Your task to perform on an android device: How much does a 3 bedroom apartment rent for in Atlanta? Image 0: 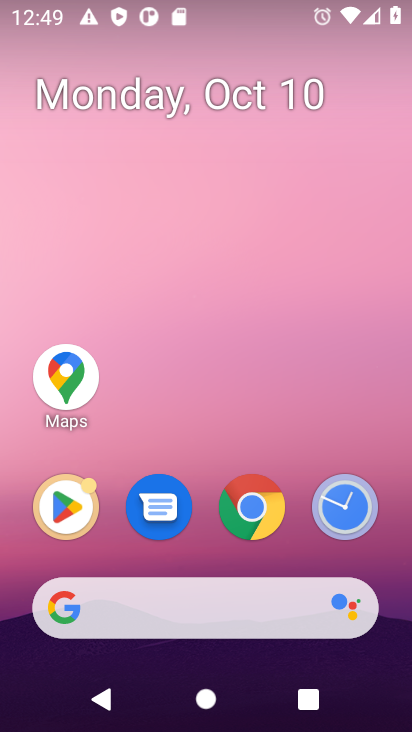
Step 0: click (265, 605)
Your task to perform on an android device: How much does a 3 bedroom apartment rent for in Atlanta? Image 1: 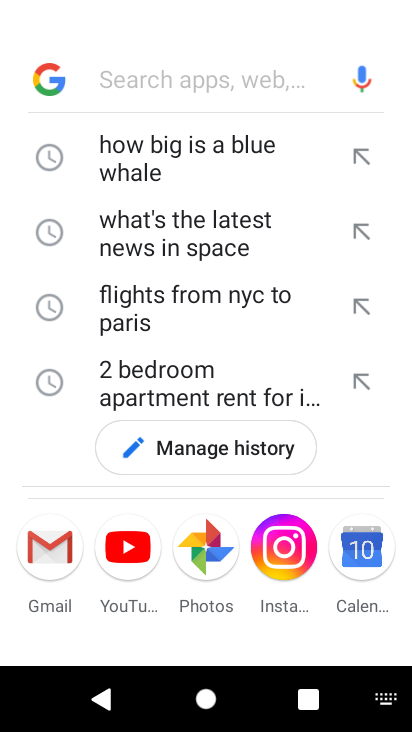
Step 1: type "3 bedroom apartment rent for in Atlanta"
Your task to perform on an android device: How much does a 3 bedroom apartment rent for in Atlanta? Image 2: 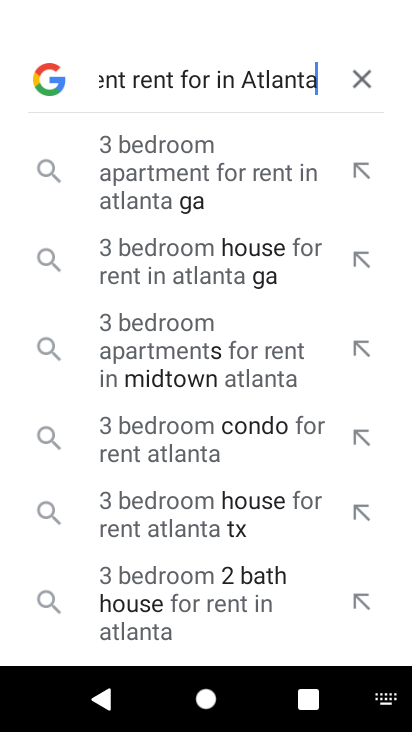
Step 2: press enter
Your task to perform on an android device: How much does a 3 bedroom apartment rent for in Atlanta? Image 3: 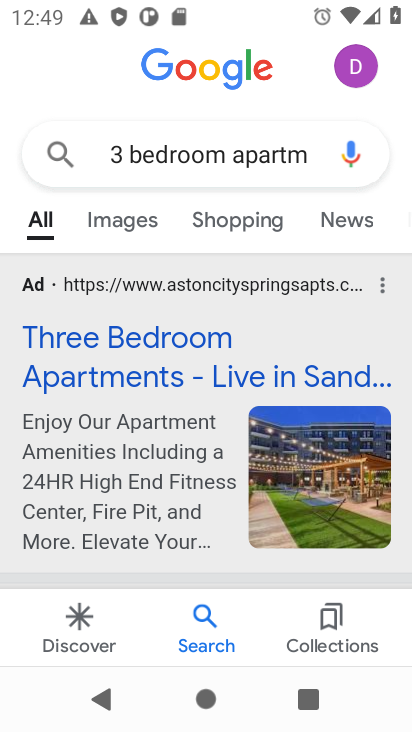
Step 3: drag from (135, 528) to (132, 425)
Your task to perform on an android device: How much does a 3 bedroom apartment rent for in Atlanta? Image 4: 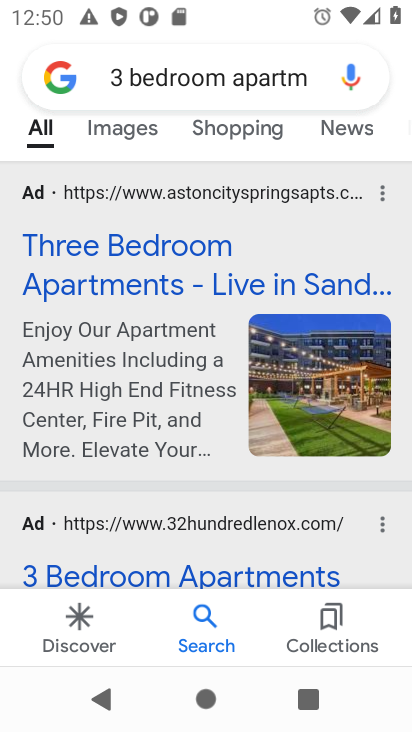
Step 4: drag from (160, 493) to (172, 412)
Your task to perform on an android device: How much does a 3 bedroom apartment rent for in Atlanta? Image 5: 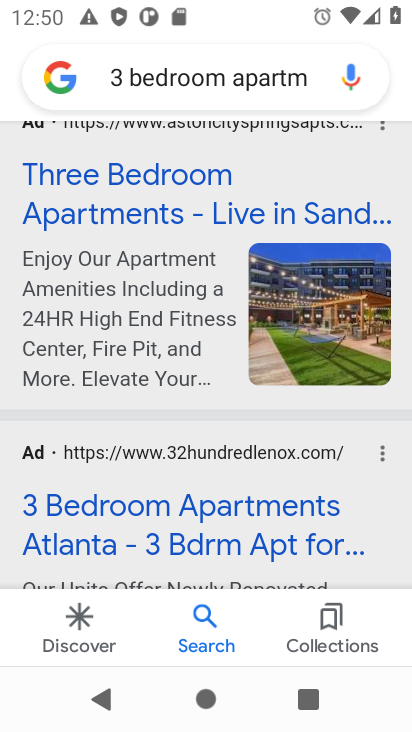
Step 5: click (172, 518)
Your task to perform on an android device: How much does a 3 bedroom apartment rent for in Atlanta? Image 6: 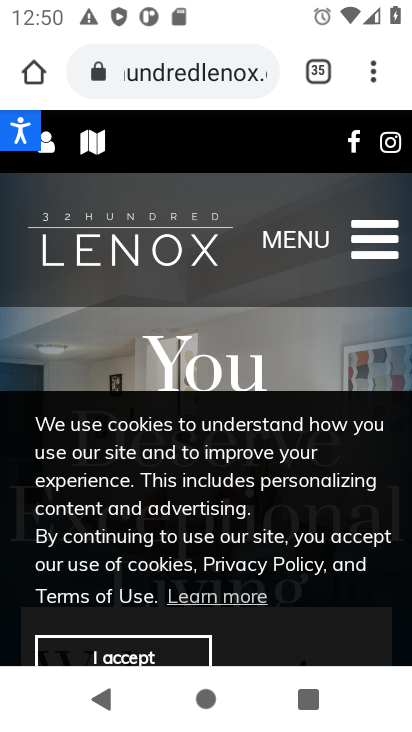
Step 6: drag from (266, 631) to (266, 418)
Your task to perform on an android device: How much does a 3 bedroom apartment rent for in Atlanta? Image 7: 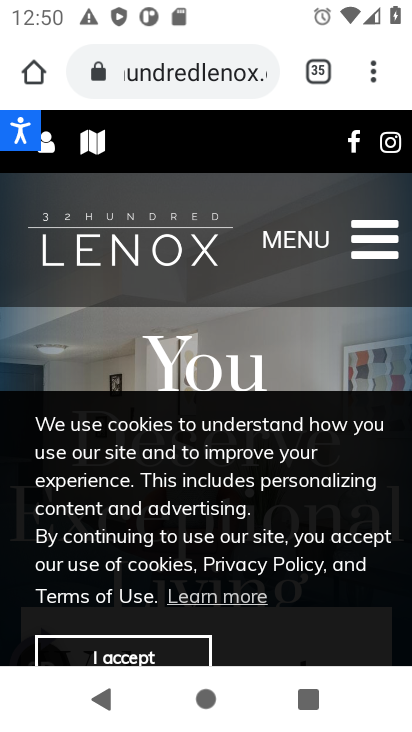
Step 7: click (138, 658)
Your task to perform on an android device: How much does a 3 bedroom apartment rent for in Atlanta? Image 8: 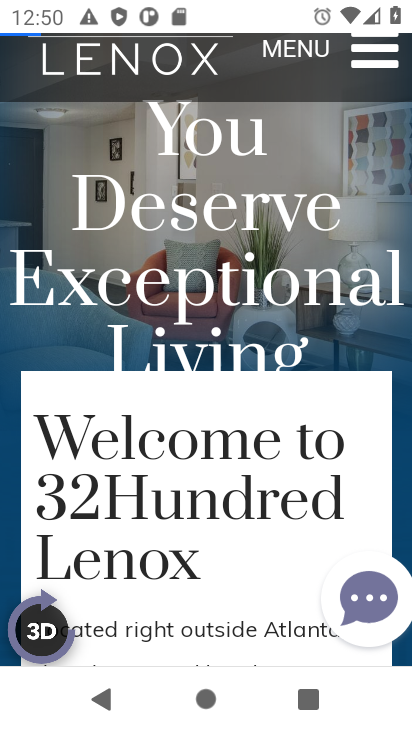
Step 8: task complete